Your task to perform on an android device: Search for pizza restaurants on Maps Image 0: 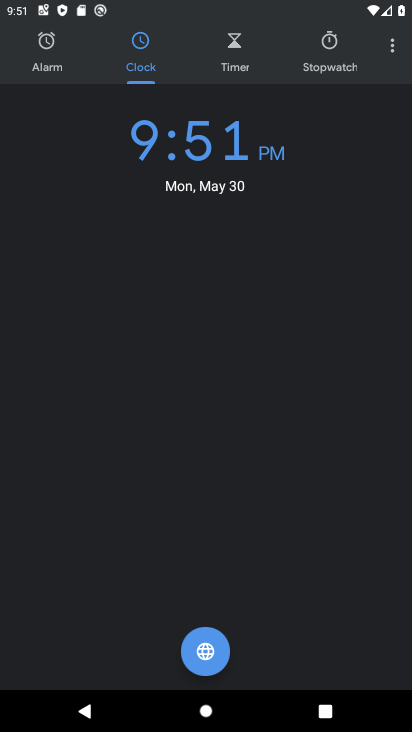
Step 0: press home button
Your task to perform on an android device: Search for pizza restaurants on Maps Image 1: 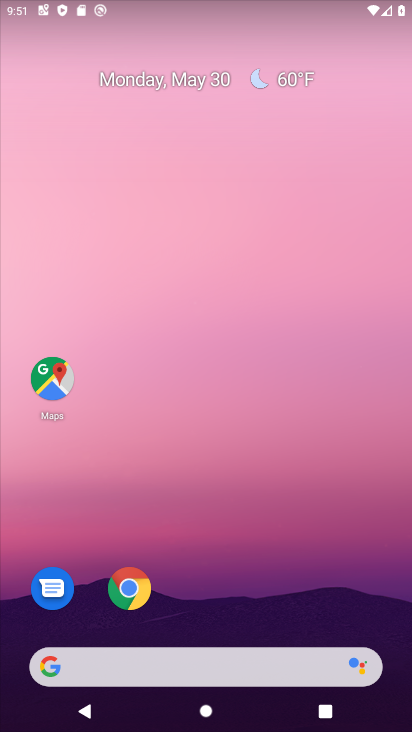
Step 1: click (56, 378)
Your task to perform on an android device: Search for pizza restaurants on Maps Image 2: 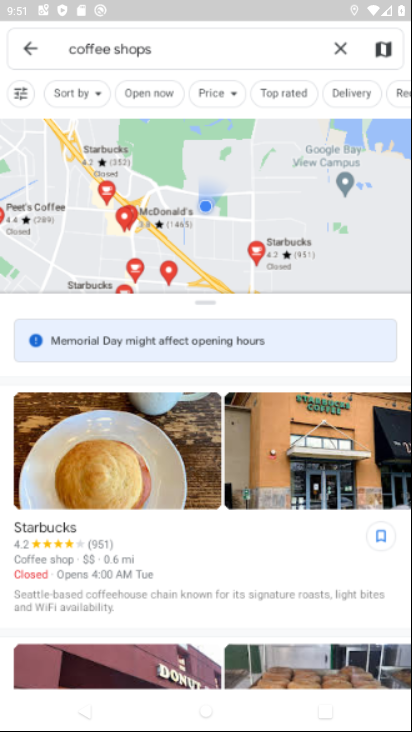
Step 2: click (338, 43)
Your task to perform on an android device: Search for pizza restaurants on Maps Image 3: 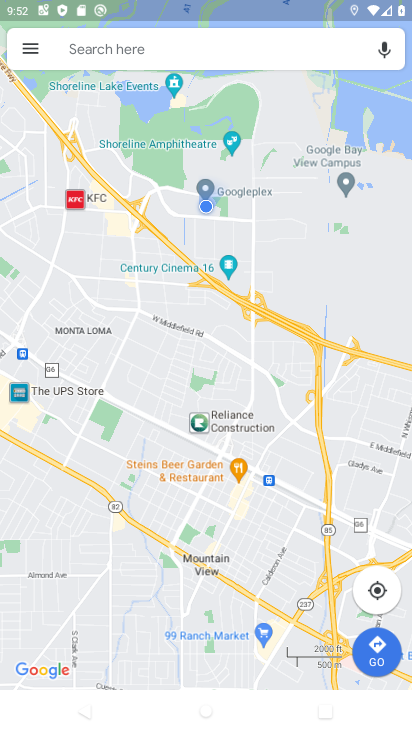
Step 3: click (168, 54)
Your task to perform on an android device: Search for pizza restaurants on Maps Image 4: 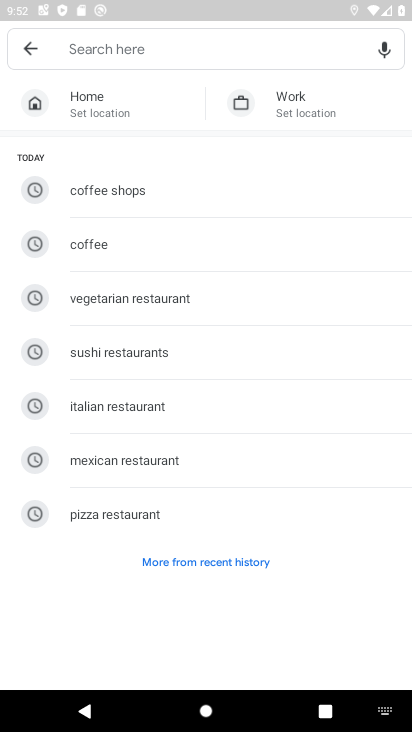
Step 4: type "Pizza restaurants"
Your task to perform on an android device: Search for pizza restaurants on Maps Image 5: 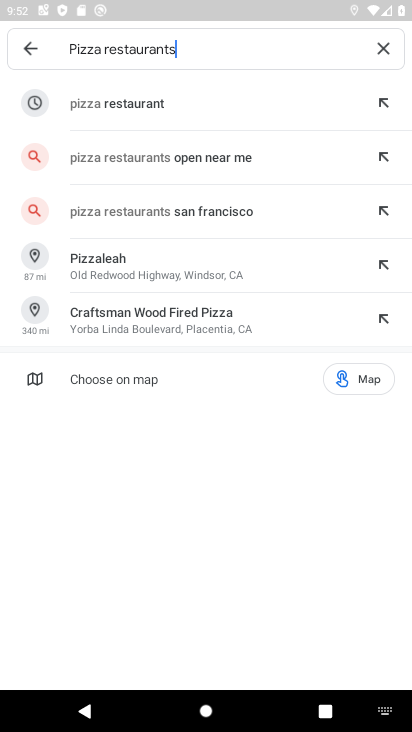
Step 5: click (195, 115)
Your task to perform on an android device: Search for pizza restaurants on Maps Image 6: 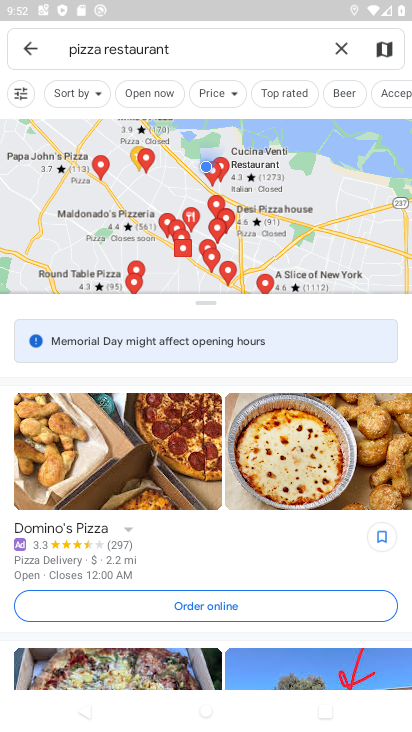
Step 6: task complete